Your task to perform on an android device: search for starred emails in the gmail app Image 0: 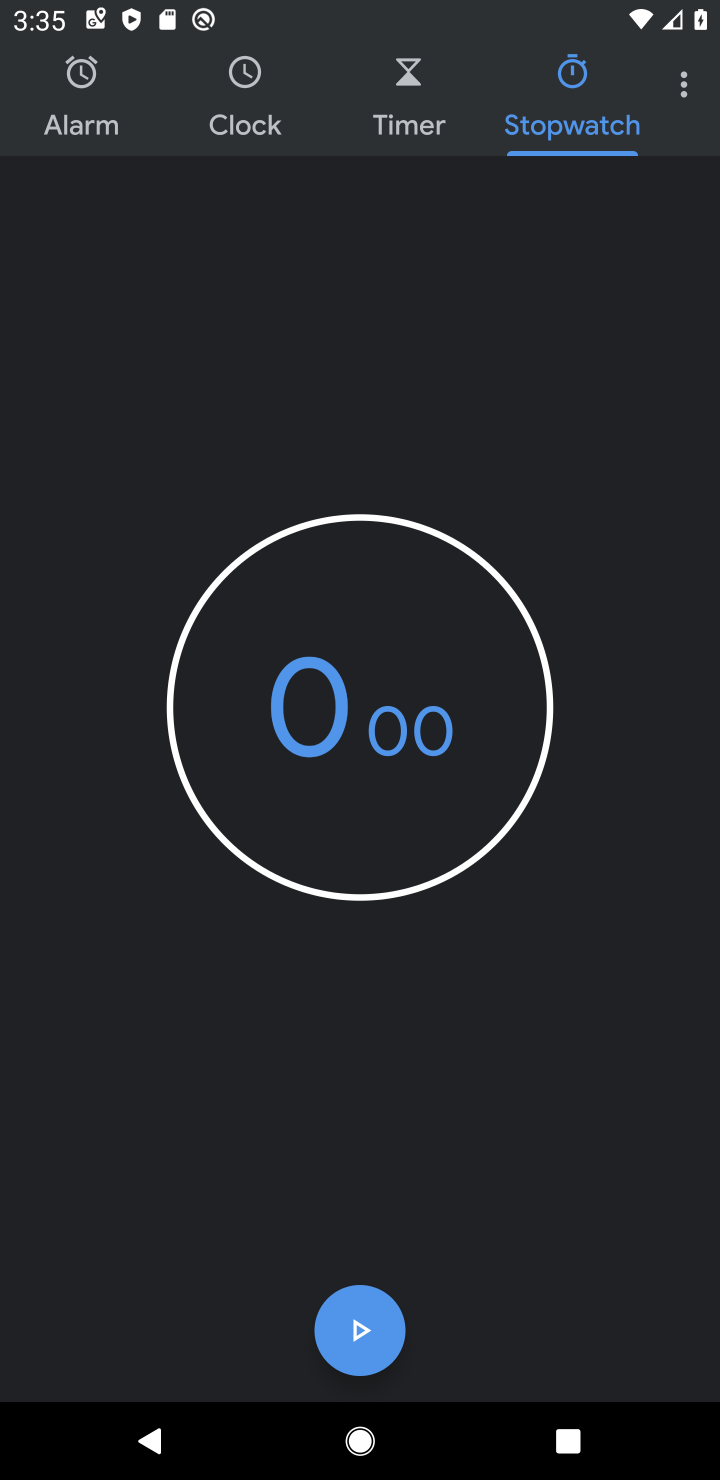
Step 0: press home button
Your task to perform on an android device: search for starred emails in the gmail app Image 1: 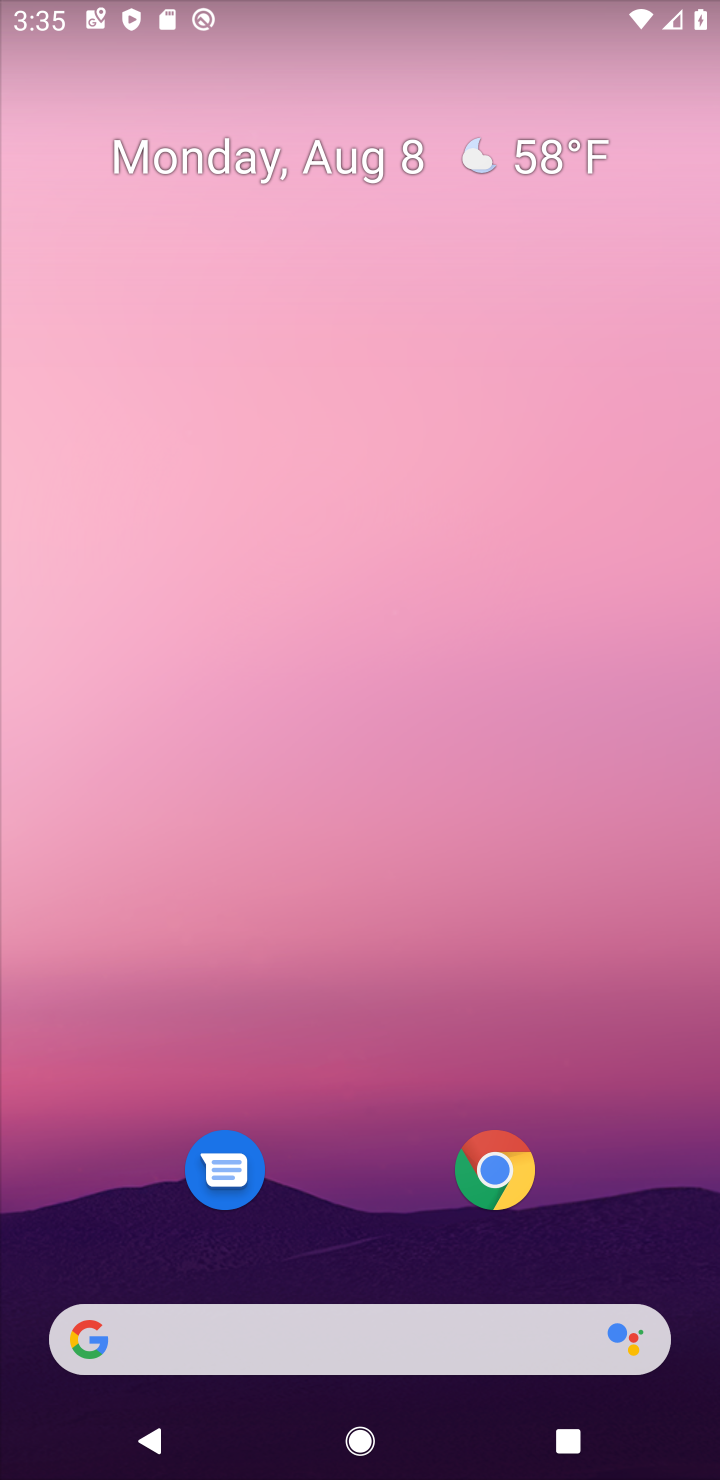
Step 1: drag from (327, 799) to (333, 470)
Your task to perform on an android device: search for starred emails in the gmail app Image 2: 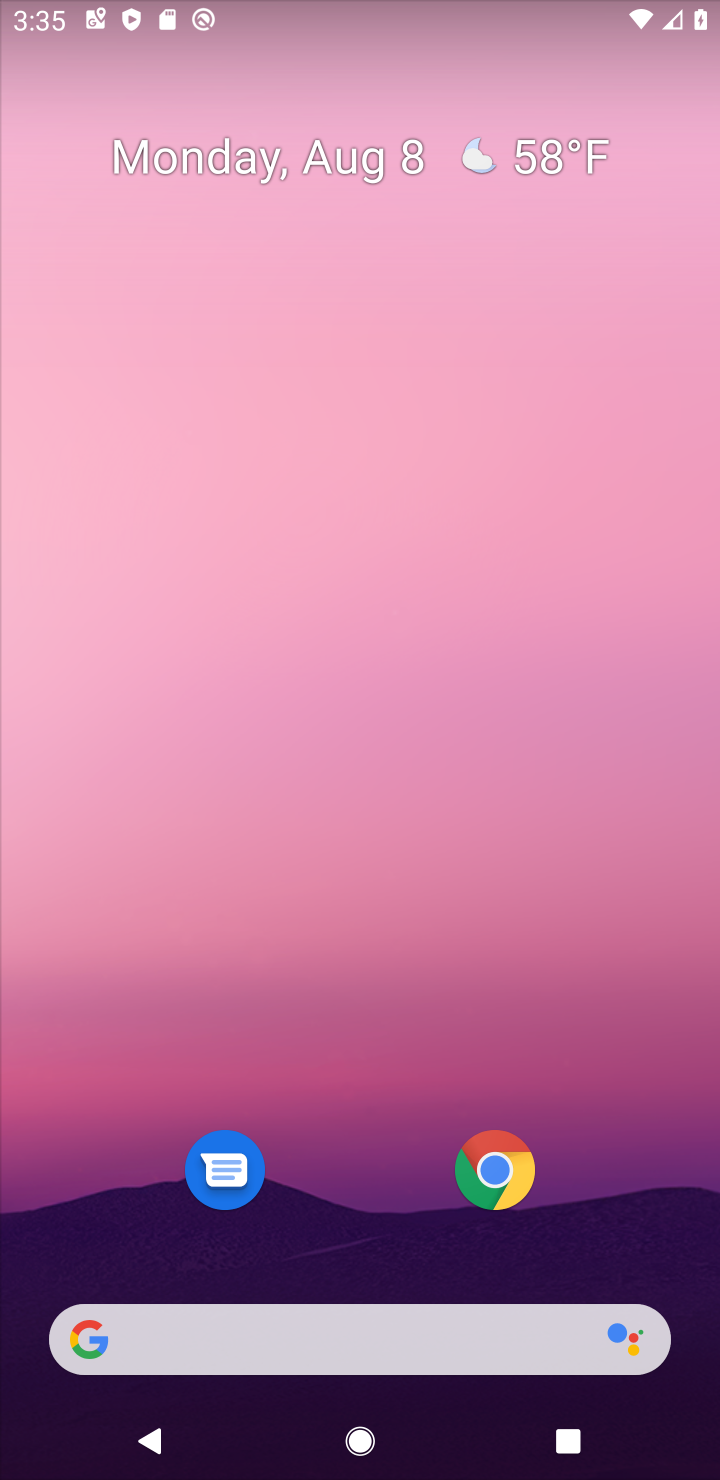
Step 2: drag from (374, 735) to (374, 430)
Your task to perform on an android device: search for starred emails in the gmail app Image 3: 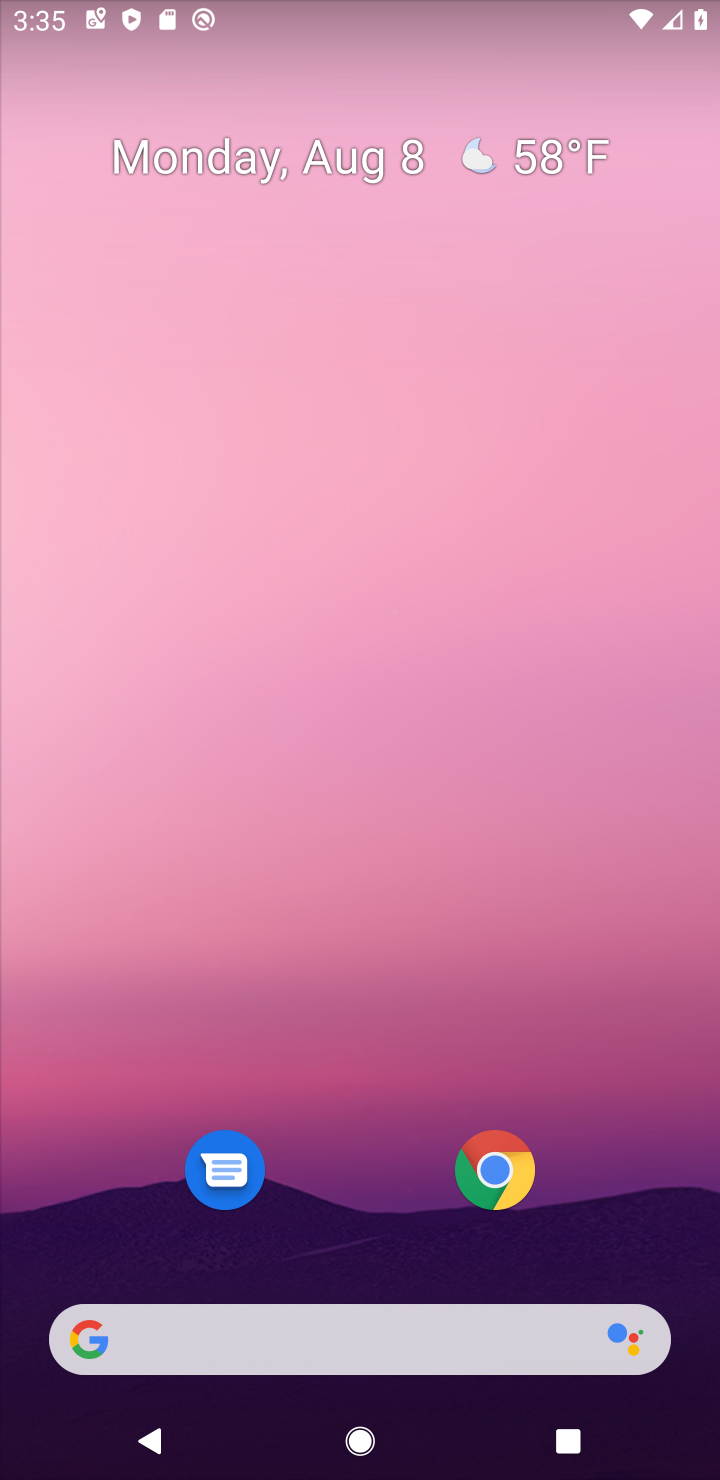
Step 3: drag from (352, 1132) to (391, 240)
Your task to perform on an android device: search for starred emails in the gmail app Image 4: 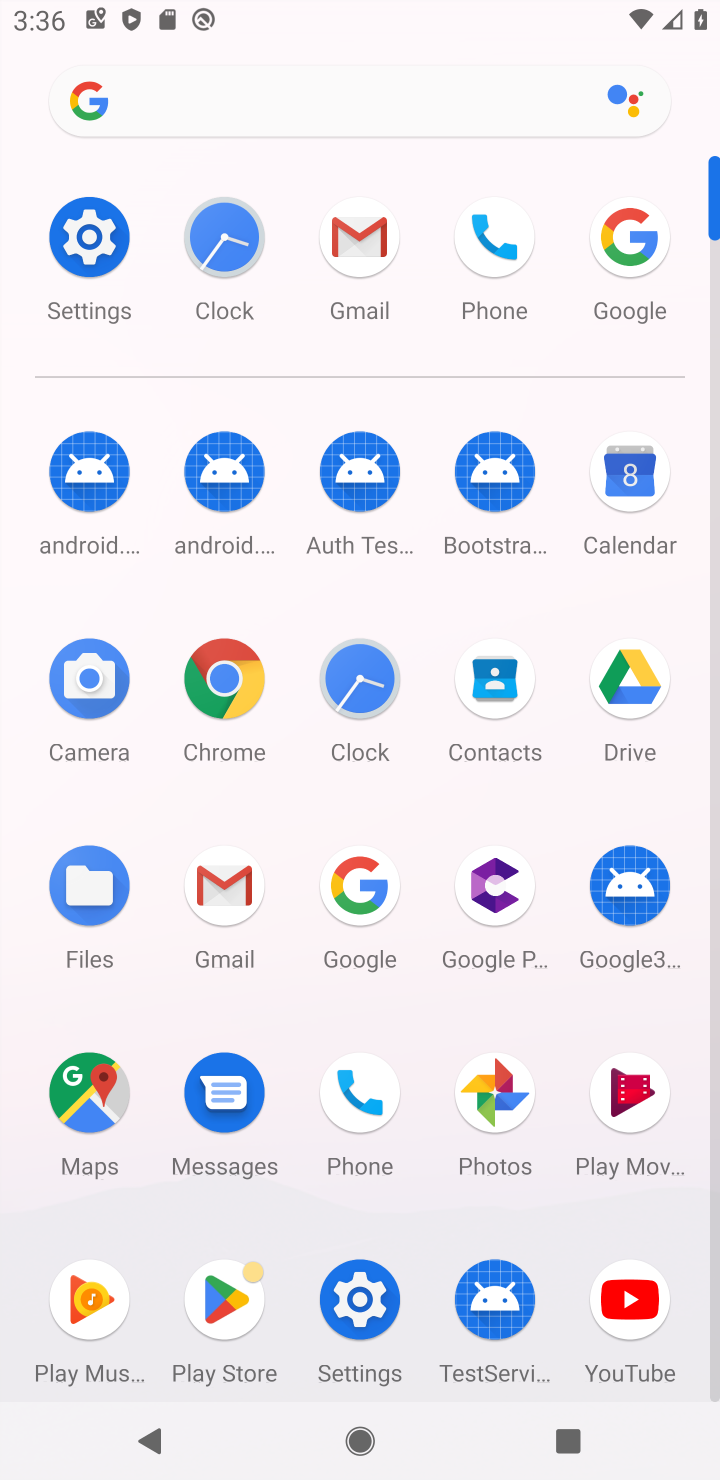
Step 4: click (386, 288)
Your task to perform on an android device: search for starred emails in the gmail app Image 5: 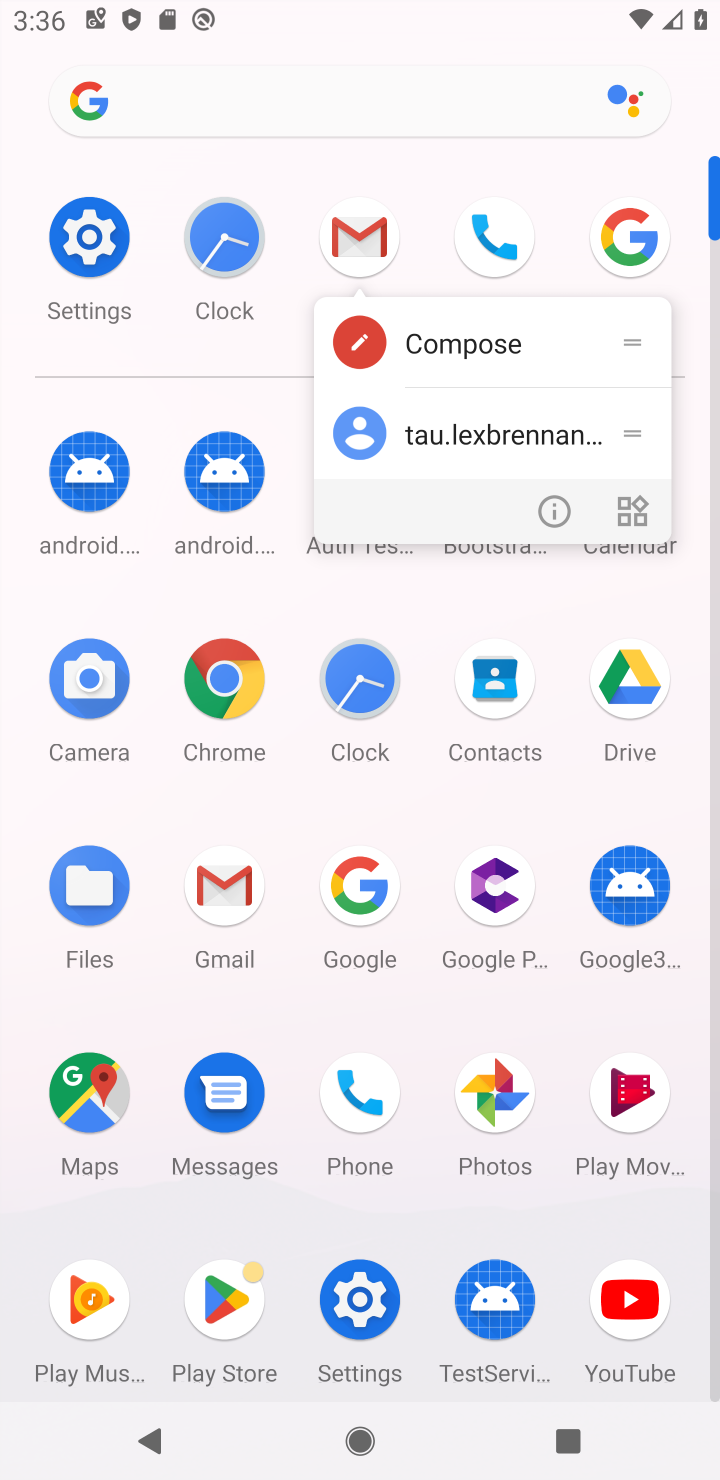
Step 5: click (346, 249)
Your task to perform on an android device: search for starred emails in the gmail app Image 6: 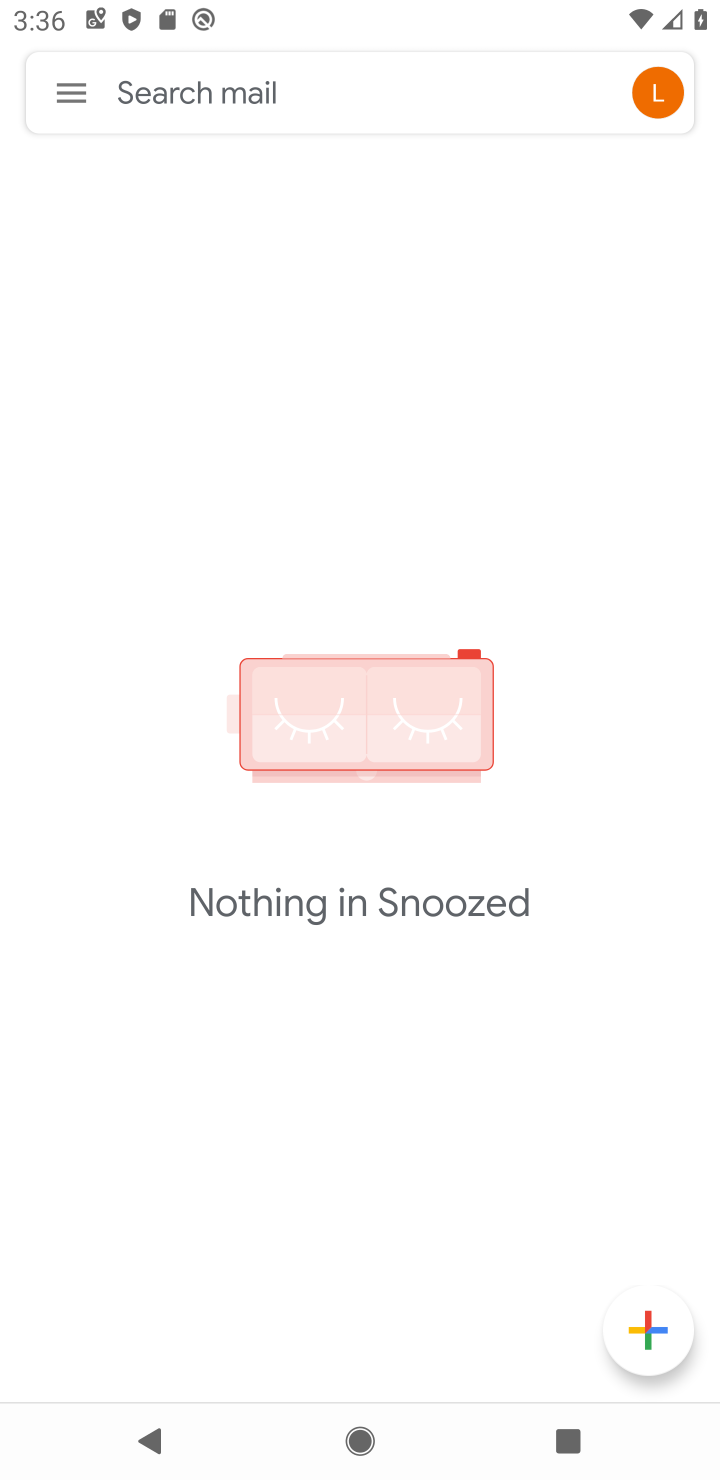
Step 6: click (74, 105)
Your task to perform on an android device: search for starred emails in the gmail app Image 7: 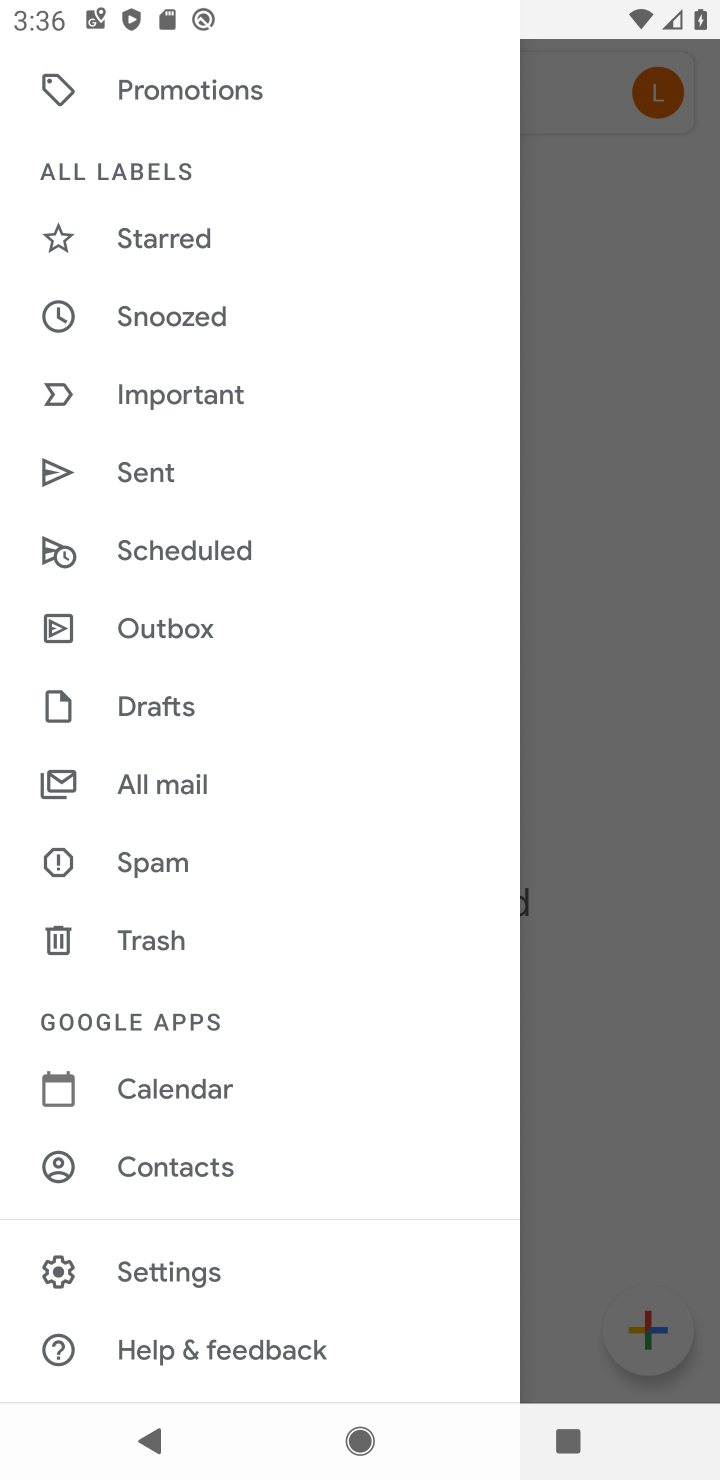
Step 7: click (190, 263)
Your task to perform on an android device: search for starred emails in the gmail app Image 8: 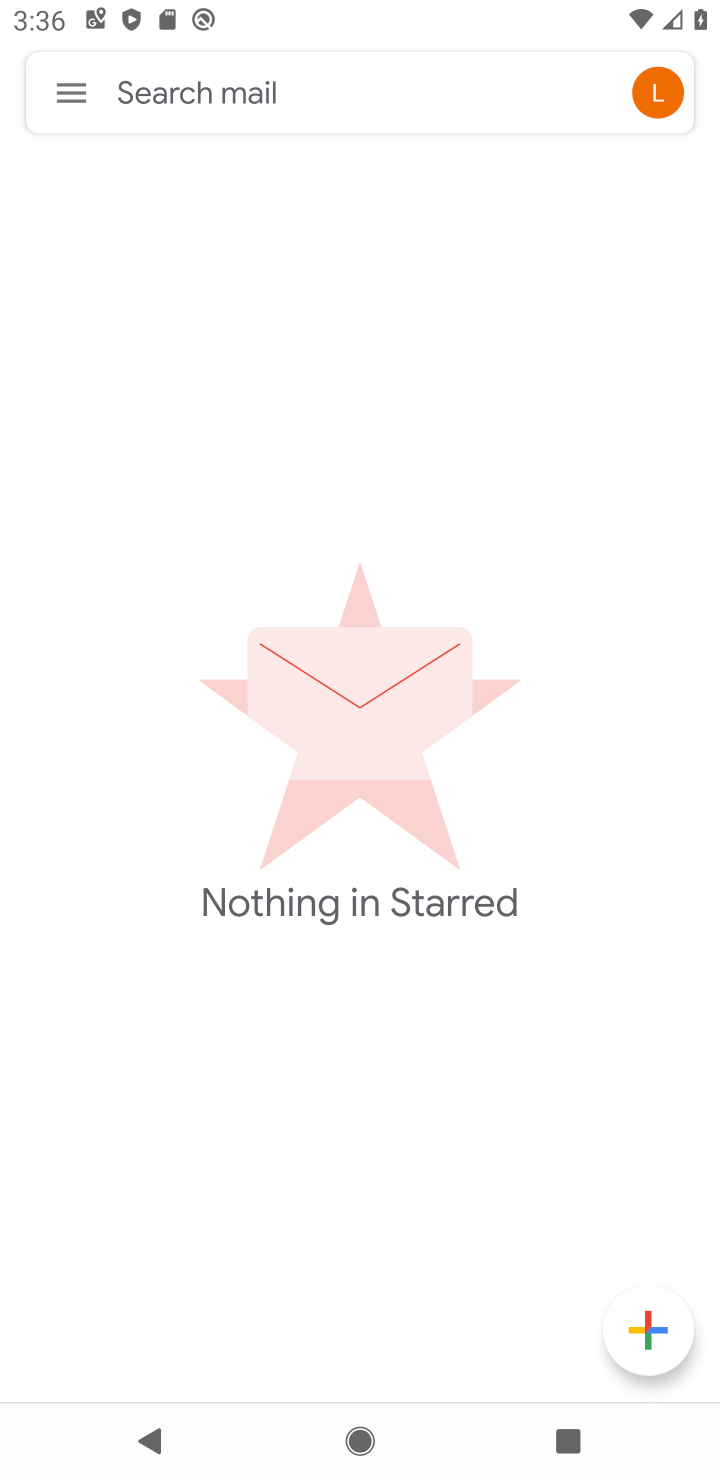
Step 8: task complete